Your task to perform on an android device: Search for seafood restaurants on Google Maps Image 0: 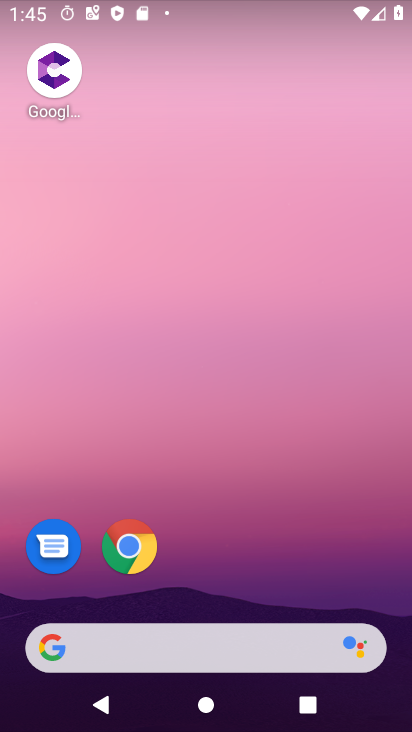
Step 0: click (208, 604)
Your task to perform on an android device: Search for seafood restaurants on Google Maps Image 1: 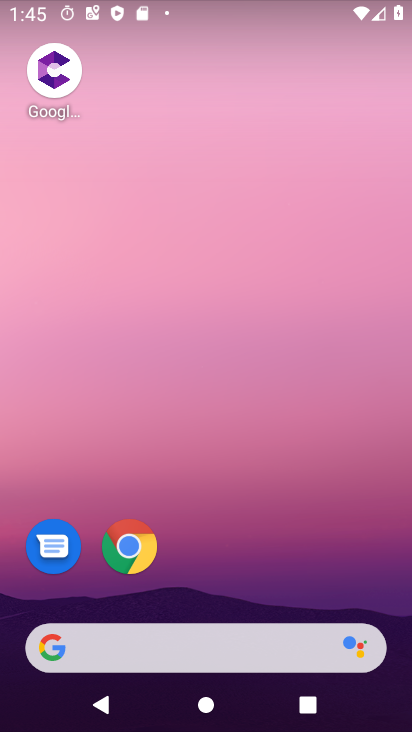
Step 1: drag from (145, 610) to (155, 246)
Your task to perform on an android device: Search for seafood restaurants on Google Maps Image 2: 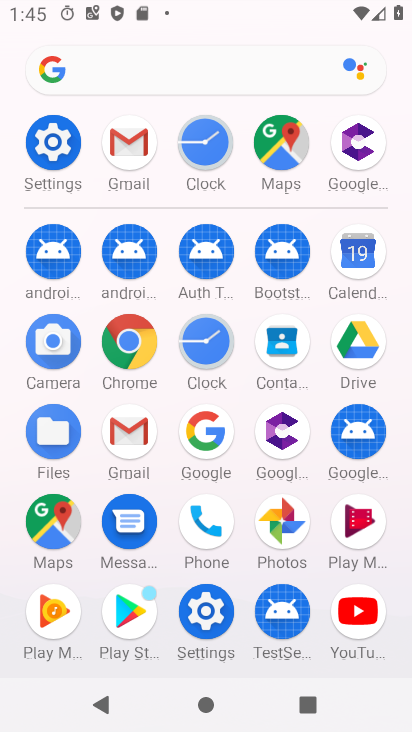
Step 2: click (51, 517)
Your task to perform on an android device: Search for seafood restaurants on Google Maps Image 3: 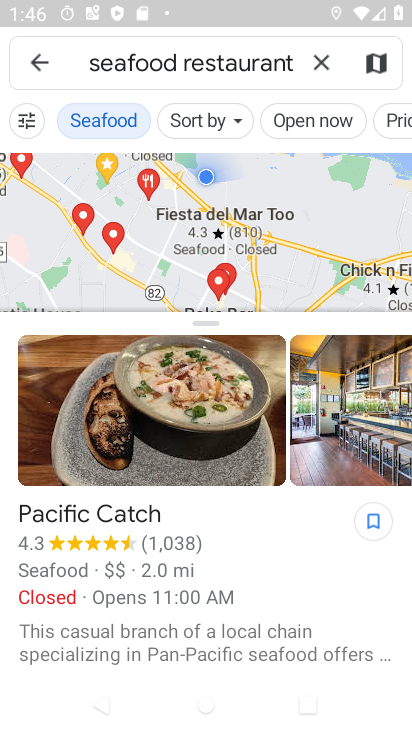
Step 3: task complete